Your task to perform on an android device: change your default location settings in chrome Image 0: 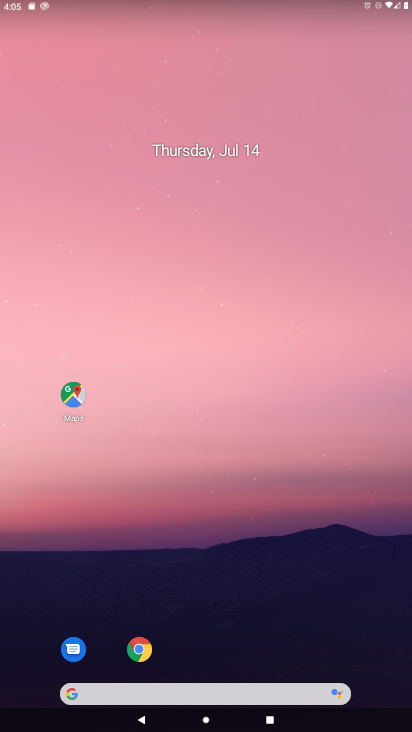
Step 0: drag from (216, 655) to (215, 64)
Your task to perform on an android device: change your default location settings in chrome Image 1: 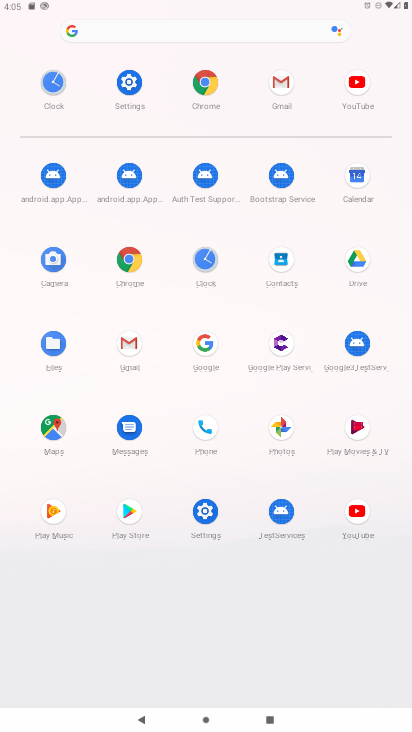
Step 1: click (129, 272)
Your task to perform on an android device: change your default location settings in chrome Image 2: 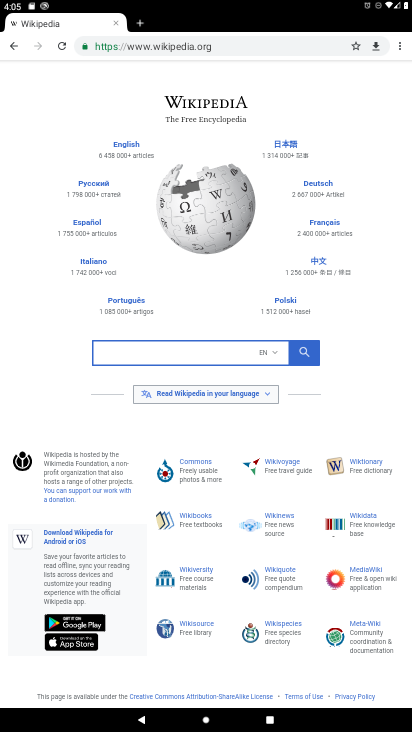
Step 2: click (395, 49)
Your task to perform on an android device: change your default location settings in chrome Image 3: 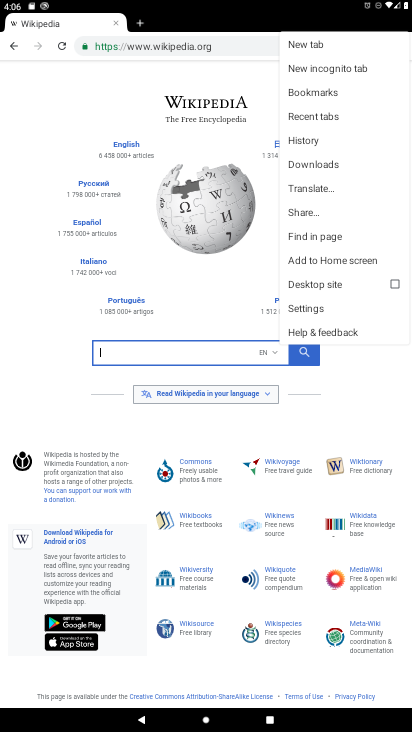
Step 3: click (312, 309)
Your task to perform on an android device: change your default location settings in chrome Image 4: 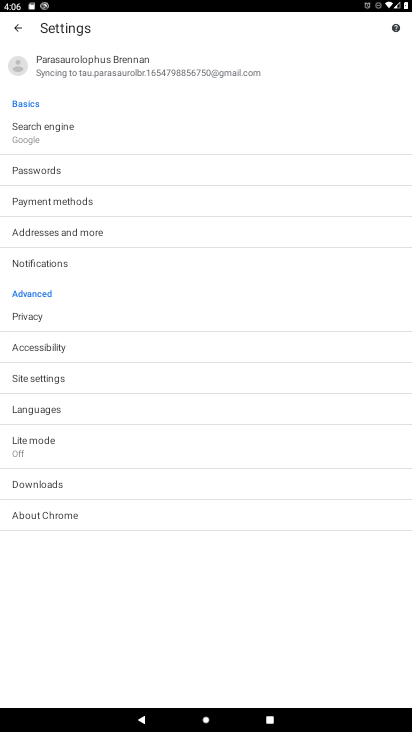
Step 4: click (65, 376)
Your task to perform on an android device: change your default location settings in chrome Image 5: 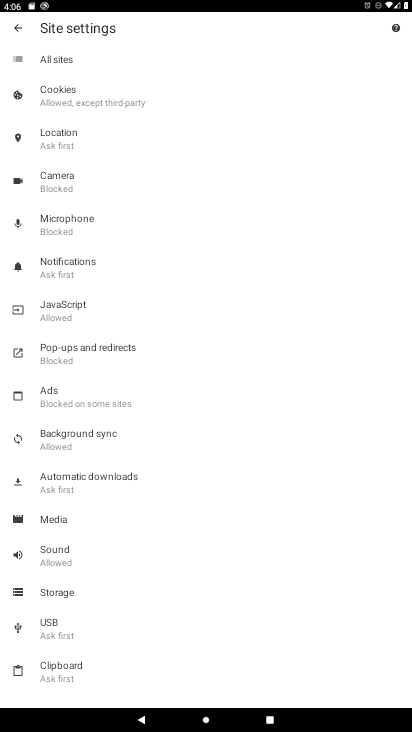
Step 5: click (78, 145)
Your task to perform on an android device: change your default location settings in chrome Image 6: 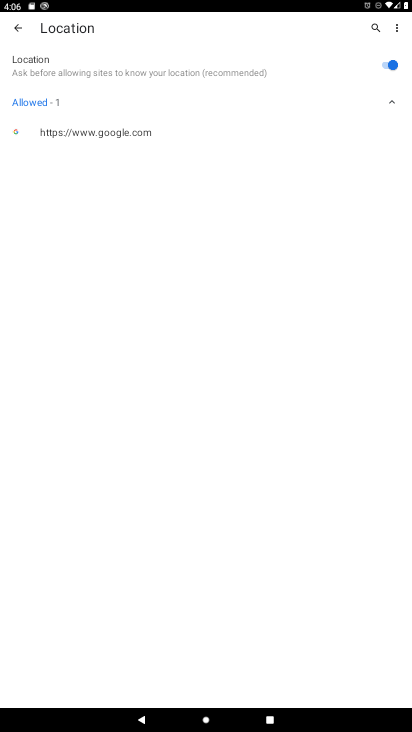
Step 6: click (356, 63)
Your task to perform on an android device: change your default location settings in chrome Image 7: 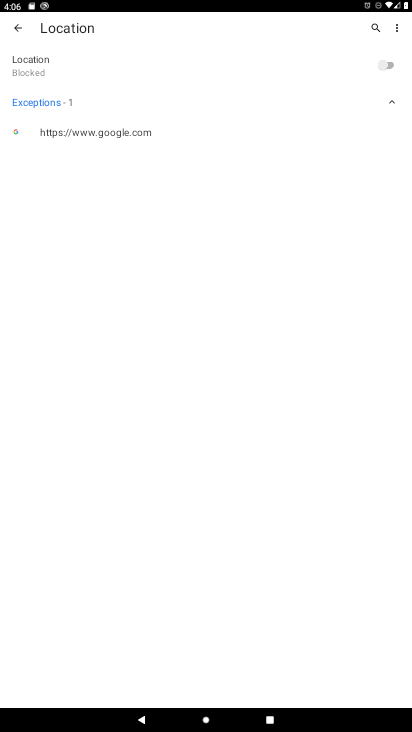
Step 7: task complete